Your task to perform on an android device: Open the map Image 0: 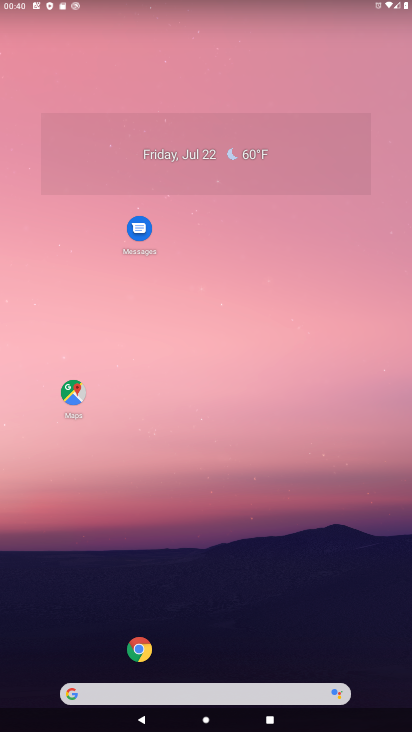
Step 0: click (81, 378)
Your task to perform on an android device: Open the map Image 1: 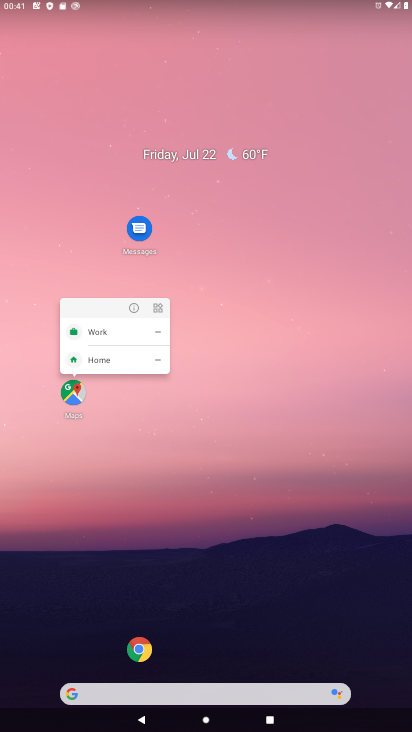
Step 1: click (65, 397)
Your task to perform on an android device: Open the map Image 2: 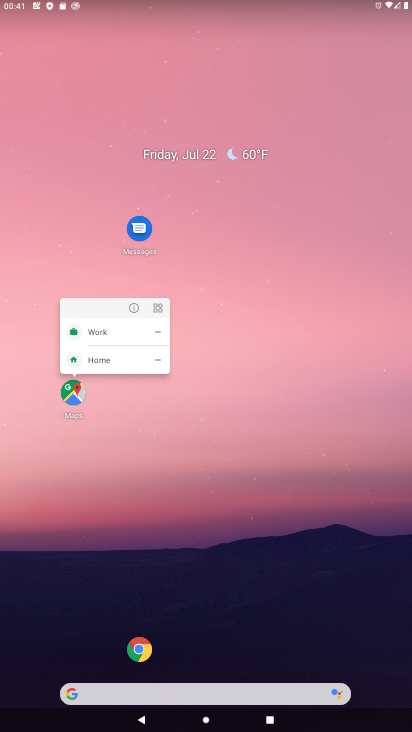
Step 2: click (75, 406)
Your task to perform on an android device: Open the map Image 3: 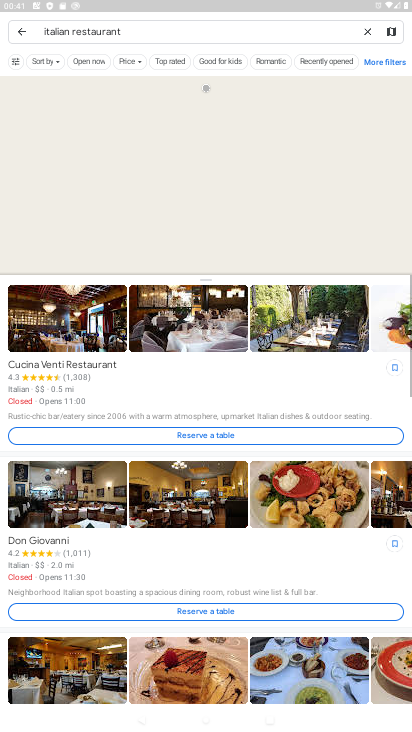
Step 3: click (19, 30)
Your task to perform on an android device: Open the map Image 4: 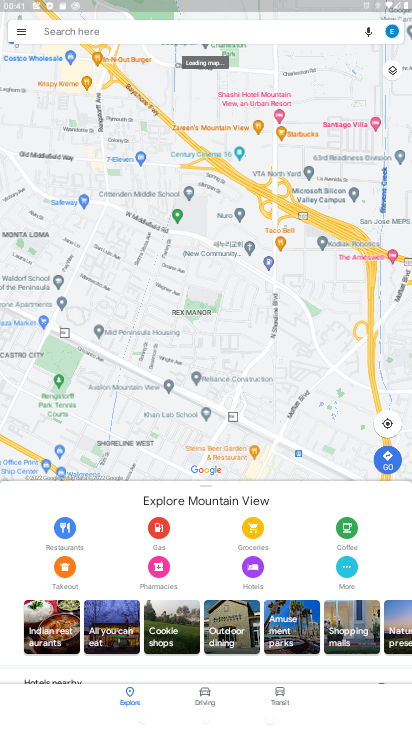
Step 4: click (79, 32)
Your task to perform on an android device: Open the map Image 5: 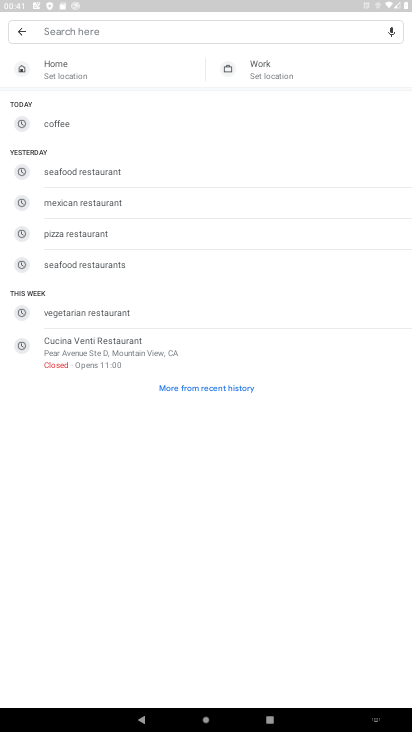
Step 5: click (19, 35)
Your task to perform on an android device: Open the map Image 6: 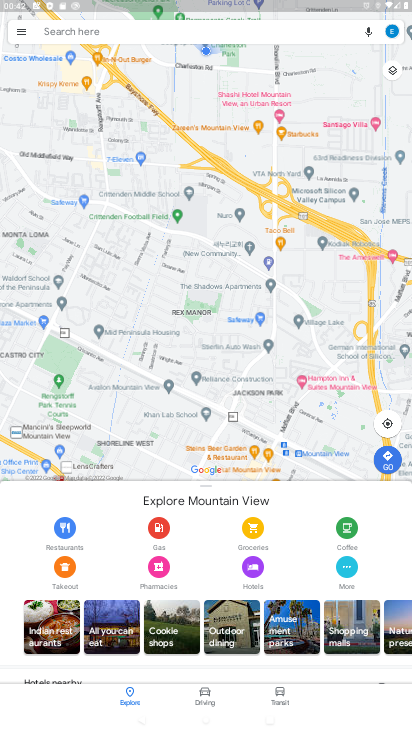
Step 6: task complete